Your task to perform on an android device: turn on data saver in the chrome app Image 0: 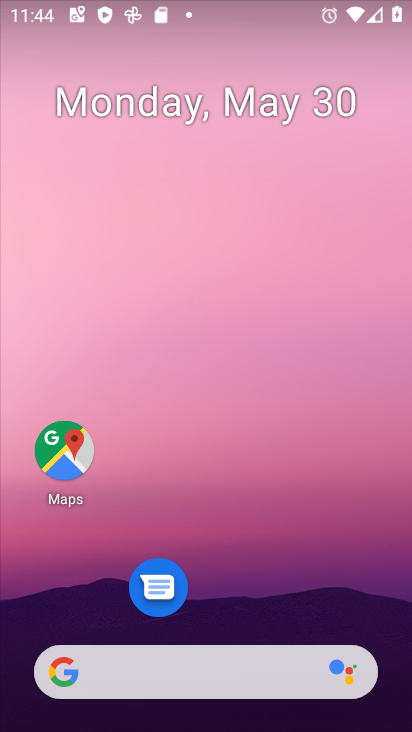
Step 0: drag from (201, 667) to (222, 29)
Your task to perform on an android device: turn on data saver in the chrome app Image 1: 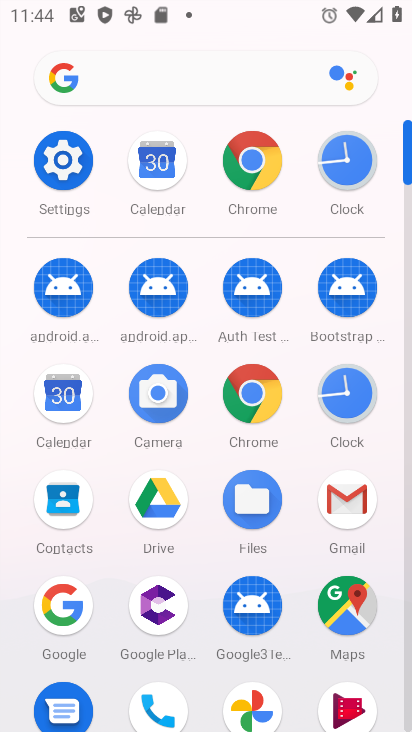
Step 1: click (259, 389)
Your task to perform on an android device: turn on data saver in the chrome app Image 2: 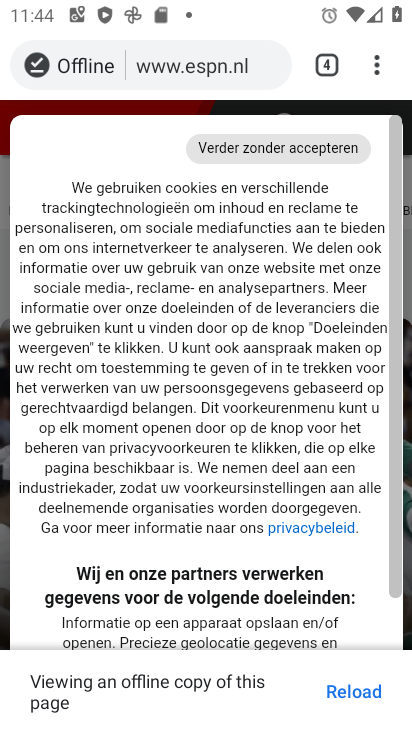
Step 2: click (371, 77)
Your task to perform on an android device: turn on data saver in the chrome app Image 3: 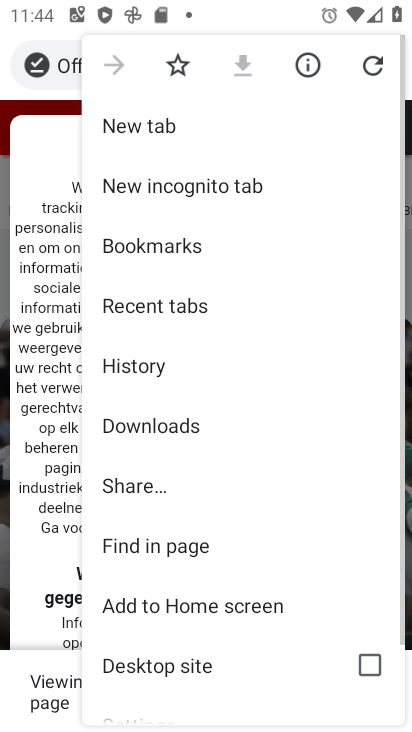
Step 3: drag from (158, 578) to (161, 86)
Your task to perform on an android device: turn on data saver in the chrome app Image 4: 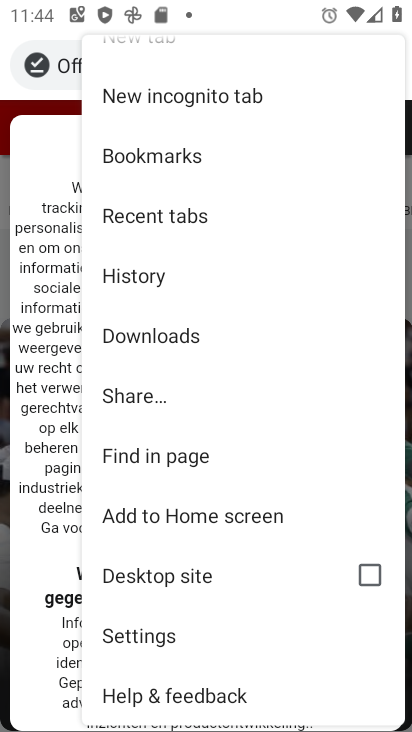
Step 4: click (170, 622)
Your task to perform on an android device: turn on data saver in the chrome app Image 5: 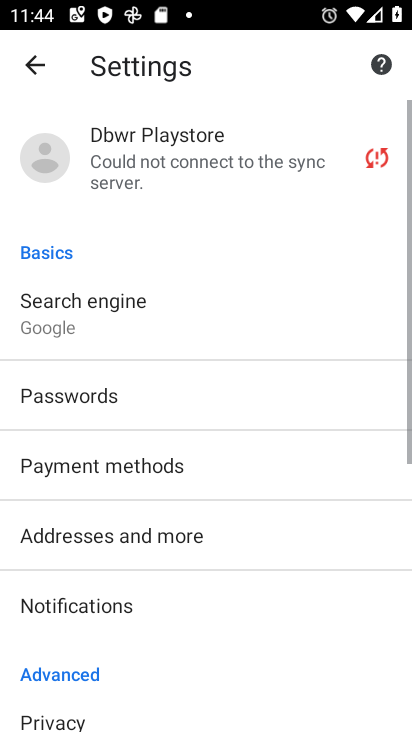
Step 5: drag from (171, 622) to (141, 36)
Your task to perform on an android device: turn on data saver in the chrome app Image 6: 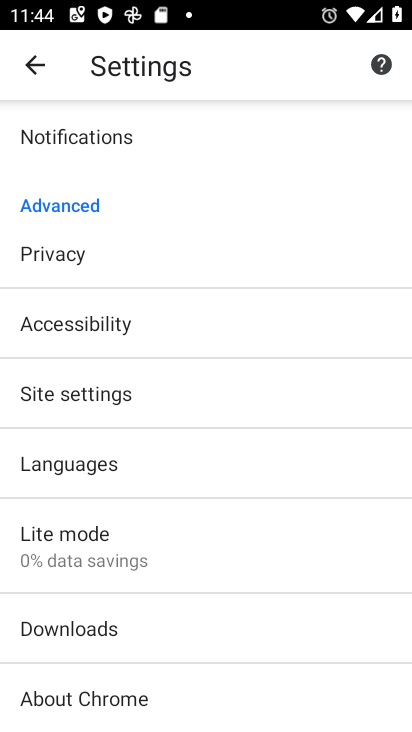
Step 6: click (38, 538)
Your task to perform on an android device: turn on data saver in the chrome app Image 7: 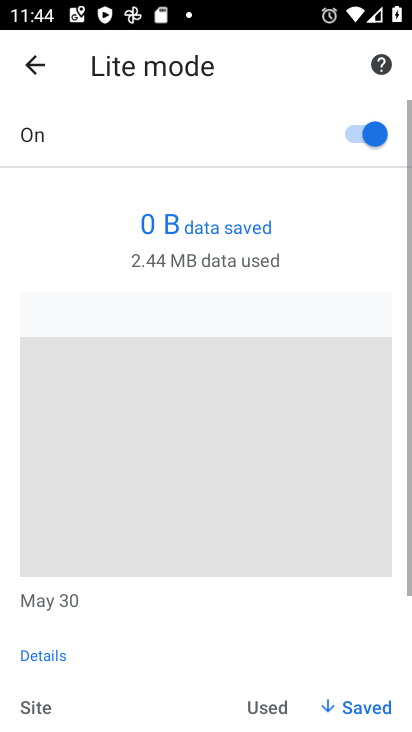
Step 7: task complete